Your task to perform on an android device: What's the price of the Galaxy phone? Image 0: 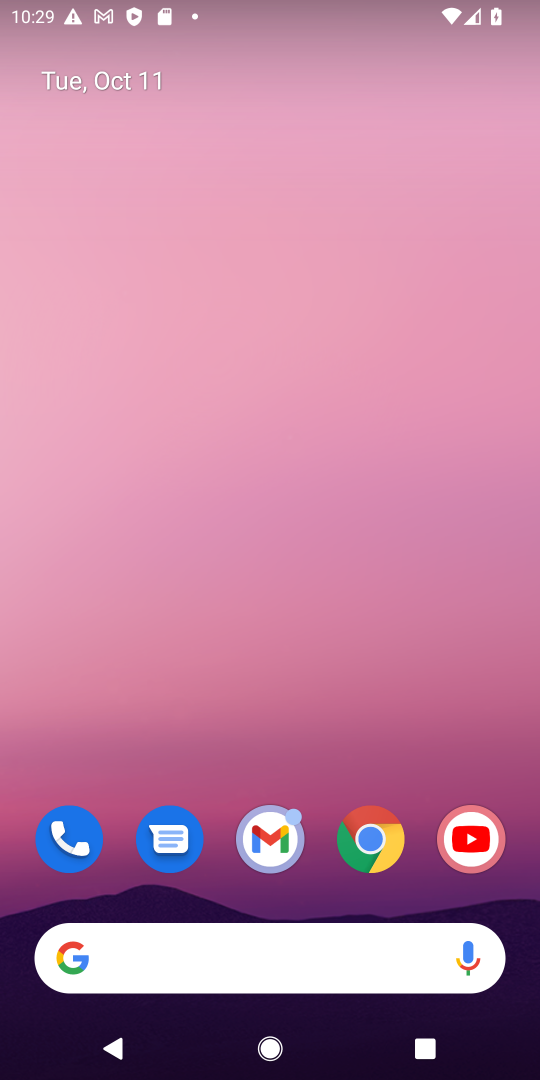
Step 0: drag from (380, 881) to (389, 568)
Your task to perform on an android device: What's the price of the Galaxy phone? Image 1: 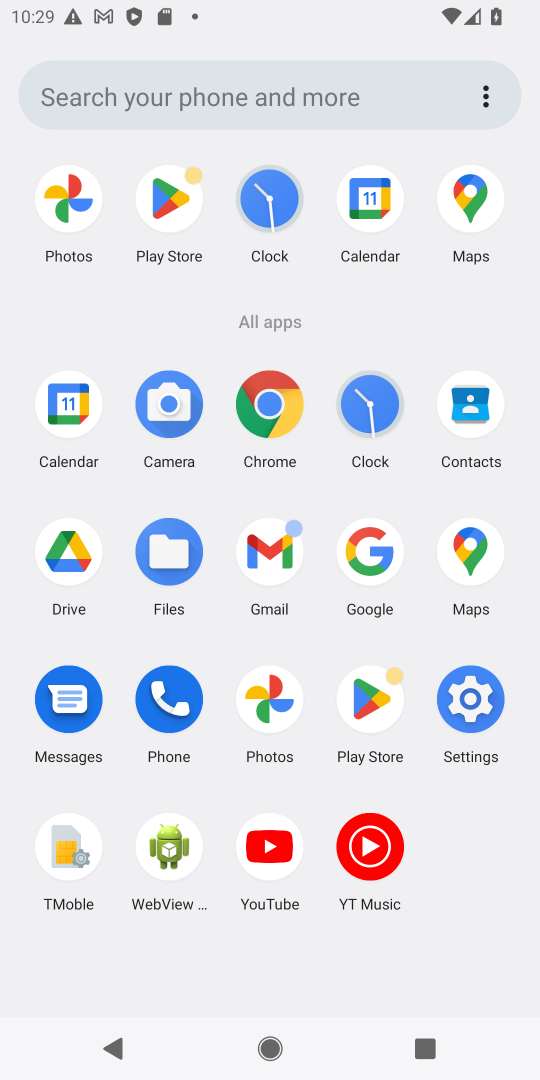
Step 1: click (385, 557)
Your task to perform on an android device: What's the price of the Galaxy phone? Image 2: 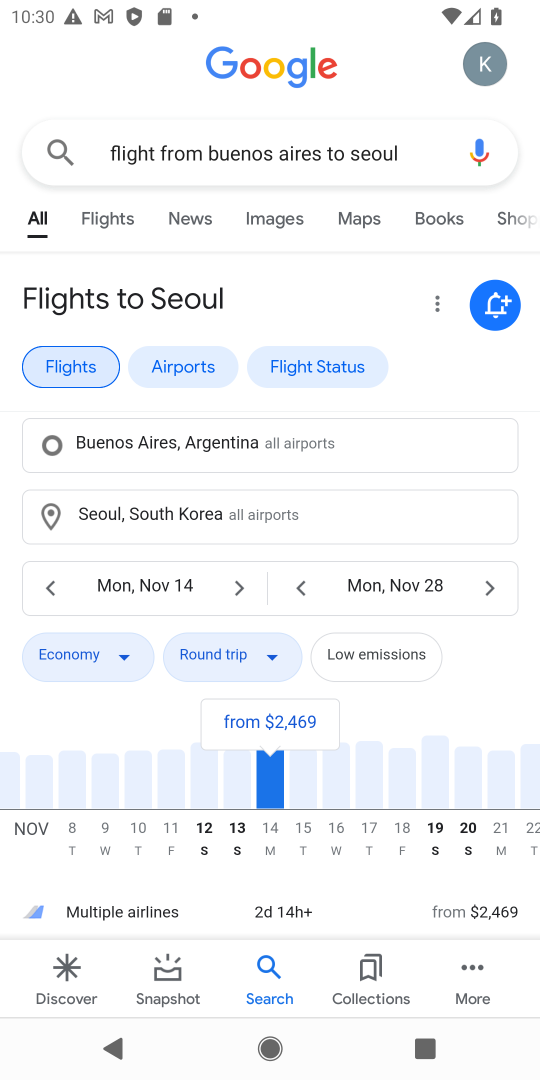
Step 2: click (318, 154)
Your task to perform on an android device: What's the price of the Galaxy phone? Image 3: 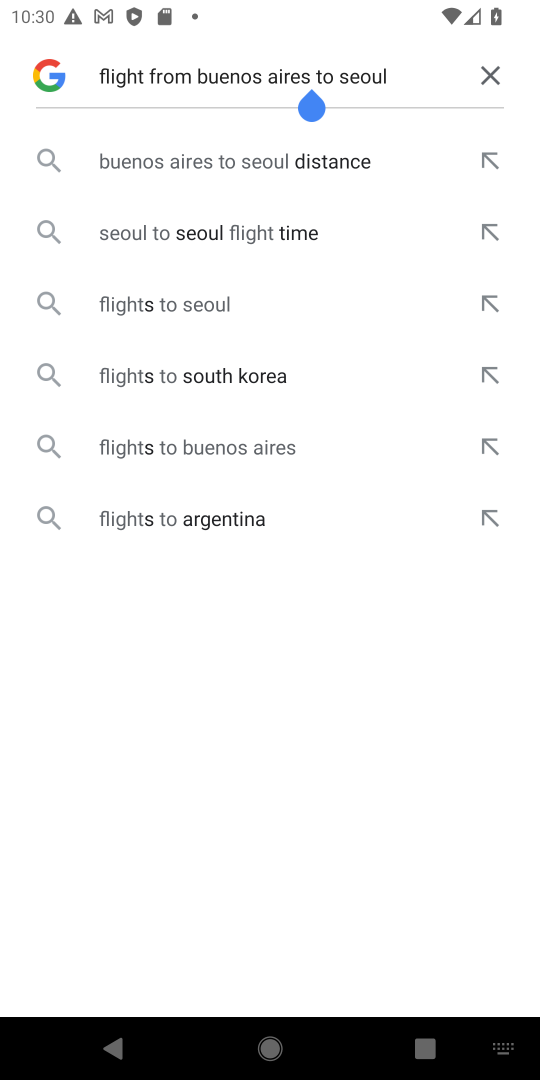
Step 3: click (488, 86)
Your task to perform on an android device: What's the price of the Galaxy phone? Image 4: 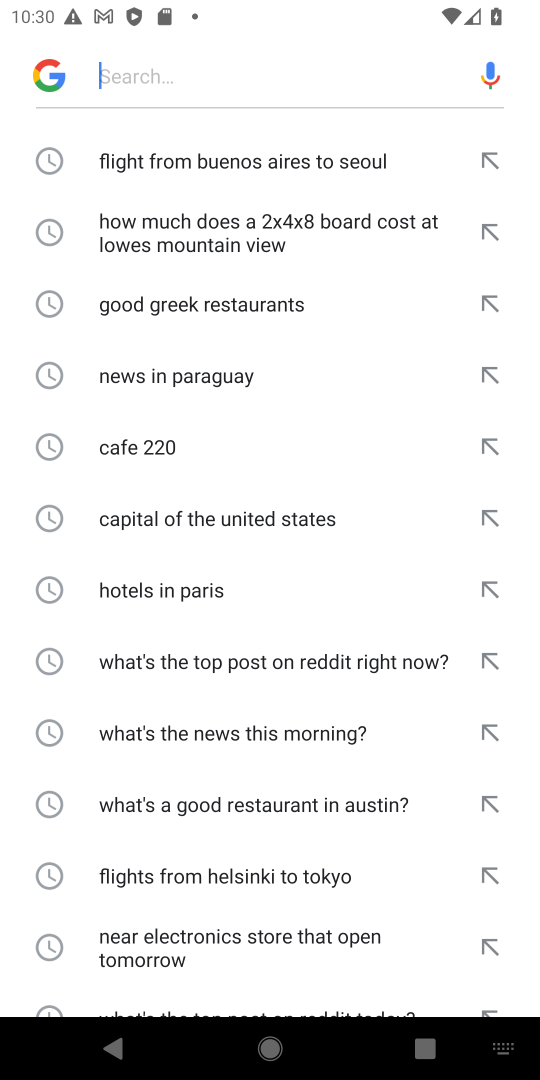
Step 4: type "What's the price of the Galaxy phone?"
Your task to perform on an android device: What's the price of the Galaxy phone? Image 5: 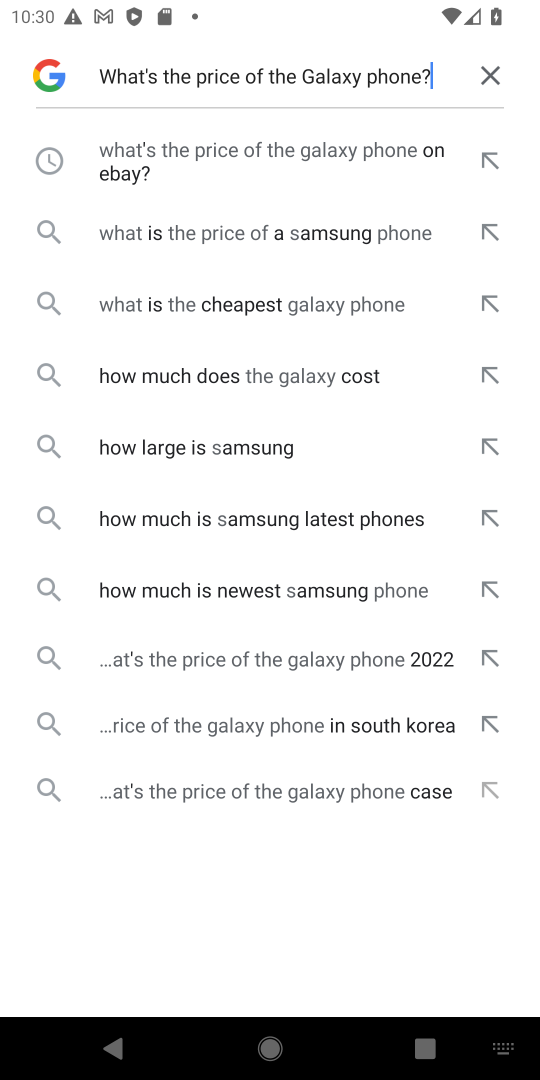
Step 5: click (411, 229)
Your task to perform on an android device: What's the price of the Galaxy phone? Image 6: 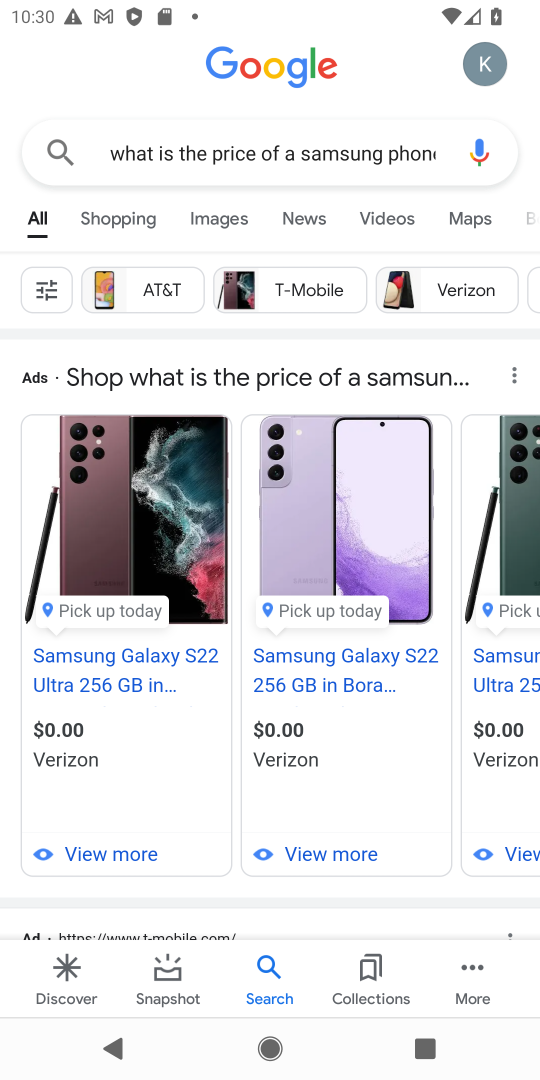
Step 6: task complete